Your task to perform on an android device: read, delete, or share a saved page in the chrome app Image 0: 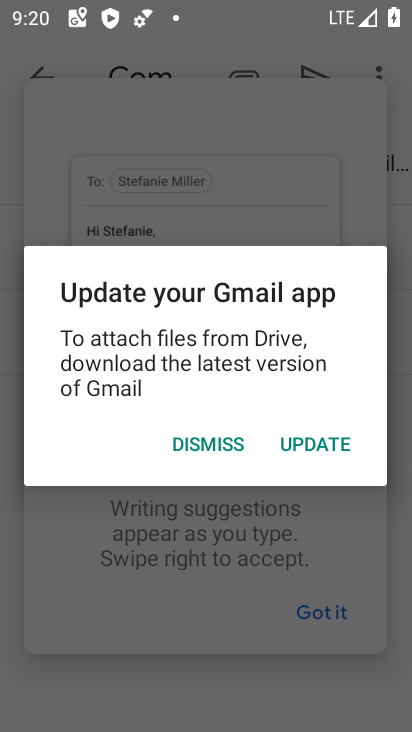
Step 0: press home button
Your task to perform on an android device: read, delete, or share a saved page in the chrome app Image 1: 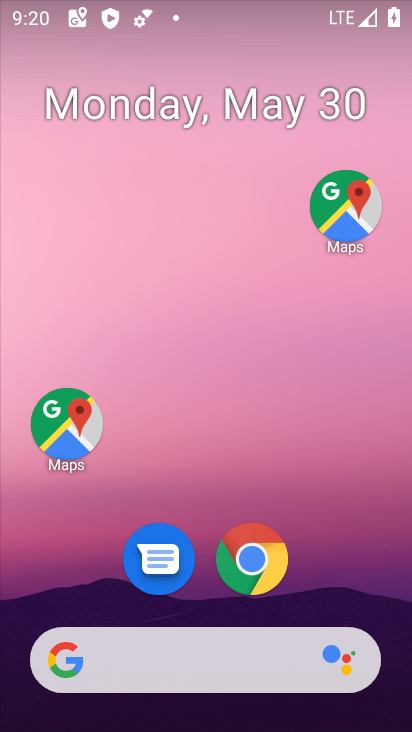
Step 1: click (249, 560)
Your task to perform on an android device: read, delete, or share a saved page in the chrome app Image 2: 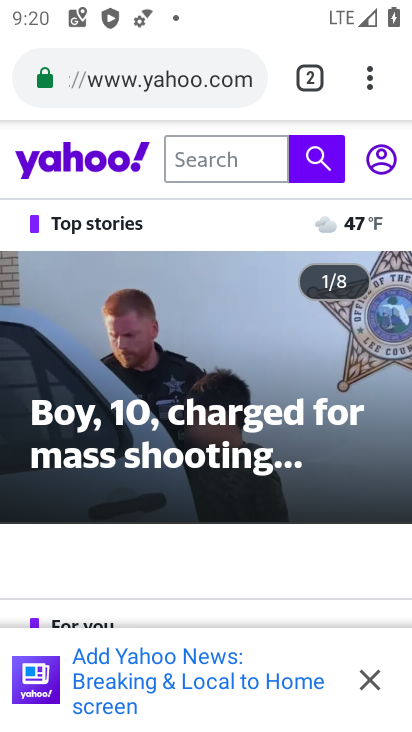
Step 2: task complete